Your task to perform on an android device: Show me the alarms in the clock app Image 0: 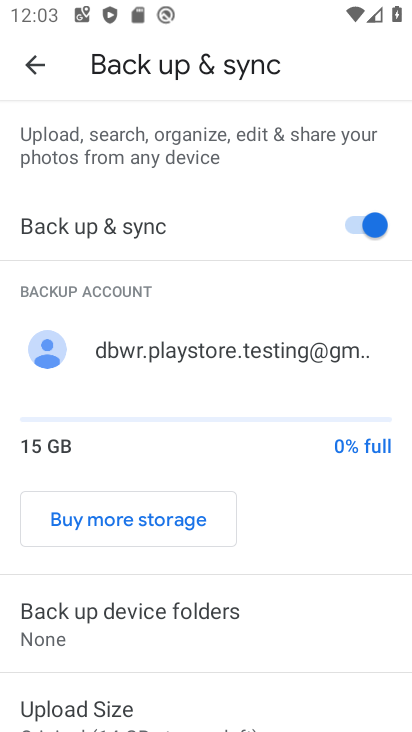
Step 0: press home button
Your task to perform on an android device: Show me the alarms in the clock app Image 1: 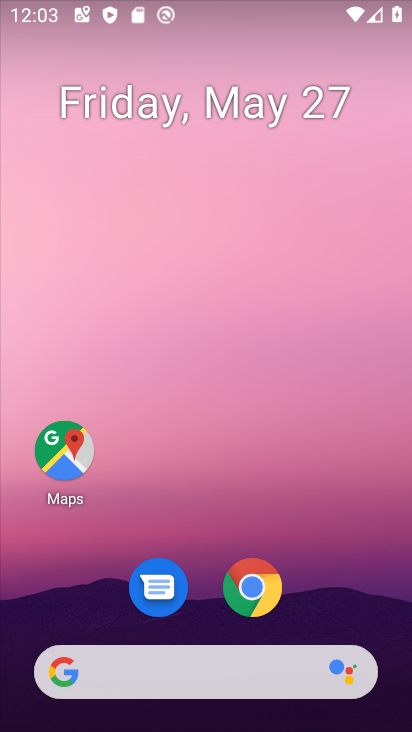
Step 1: drag from (126, 730) to (189, 72)
Your task to perform on an android device: Show me the alarms in the clock app Image 2: 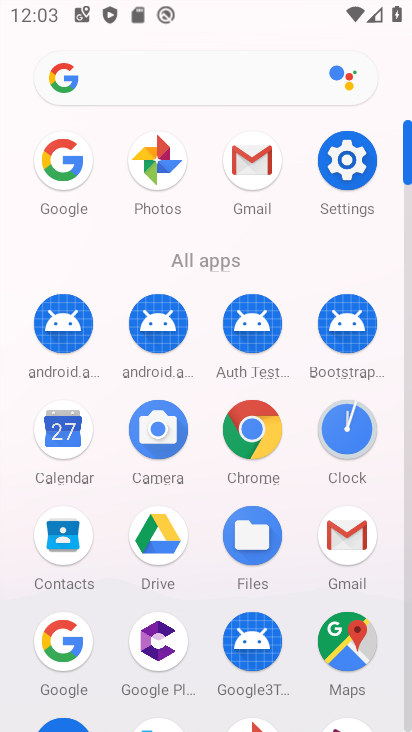
Step 2: click (336, 437)
Your task to perform on an android device: Show me the alarms in the clock app Image 3: 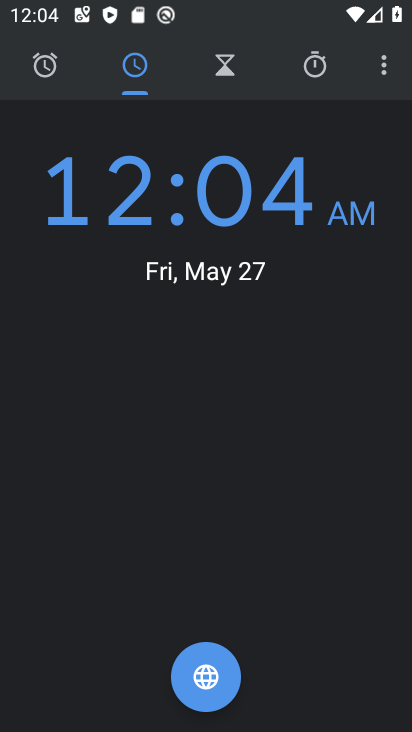
Step 3: click (52, 71)
Your task to perform on an android device: Show me the alarms in the clock app Image 4: 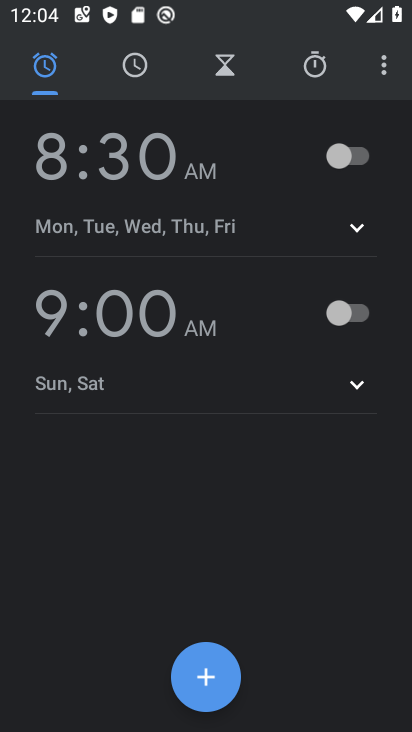
Step 4: task complete